Your task to perform on an android device: Open Google Chrome and open the bookmarks view Image 0: 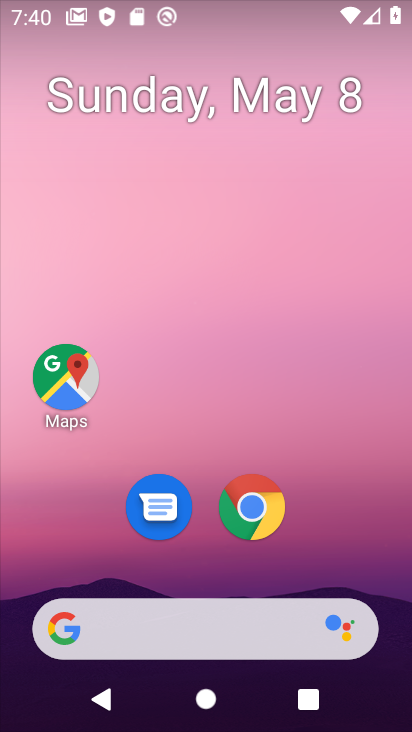
Step 0: click (201, 91)
Your task to perform on an android device: Open Google Chrome and open the bookmarks view Image 1: 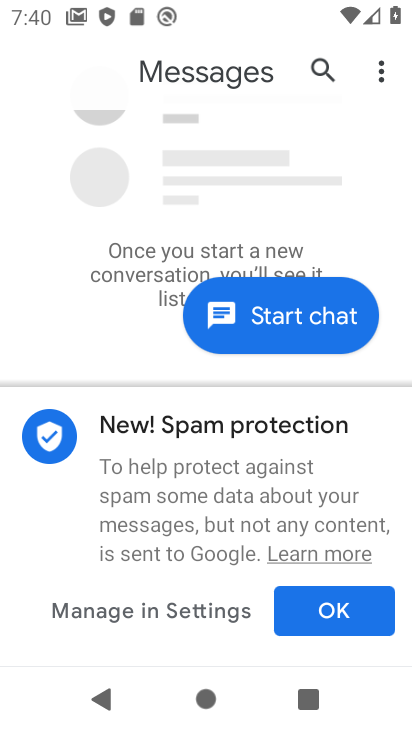
Step 1: press home button
Your task to perform on an android device: Open Google Chrome and open the bookmarks view Image 2: 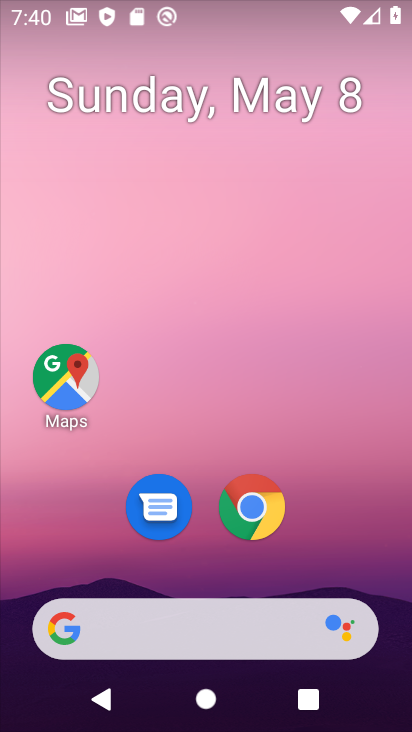
Step 2: click (253, 510)
Your task to perform on an android device: Open Google Chrome and open the bookmarks view Image 3: 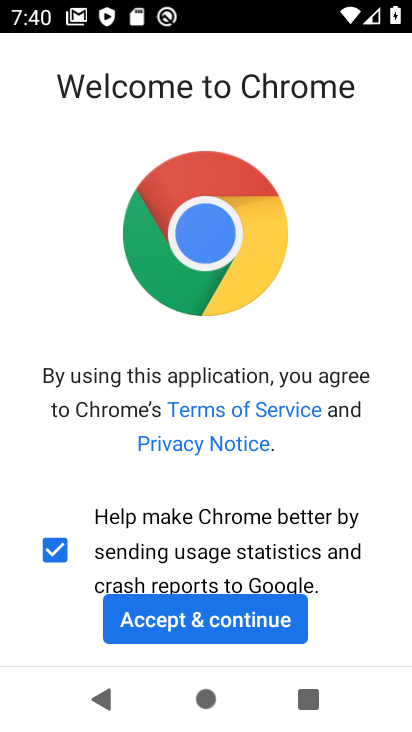
Step 3: click (224, 614)
Your task to perform on an android device: Open Google Chrome and open the bookmarks view Image 4: 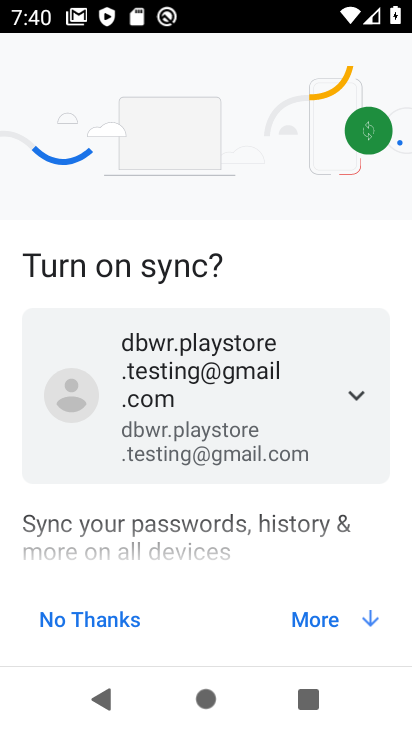
Step 4: click (327, 624)
Your task to perform on an android device: Open Google Chrome and open the bookmarks view Image 5: 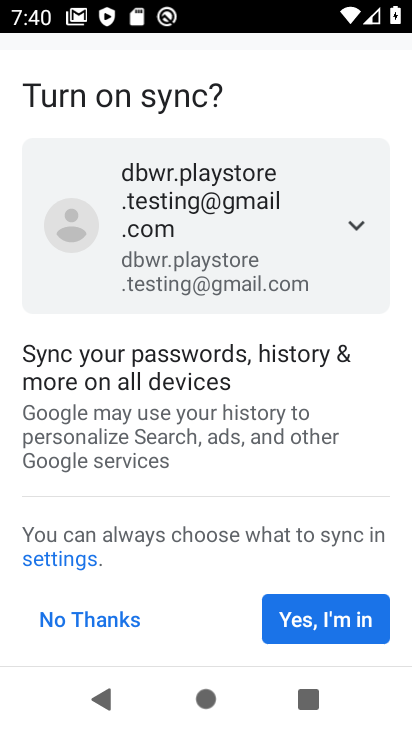
Step 5: click (327, 624)
Your task to perform on an android device: Open Google Chrome and open the bookmarks view Image 6: 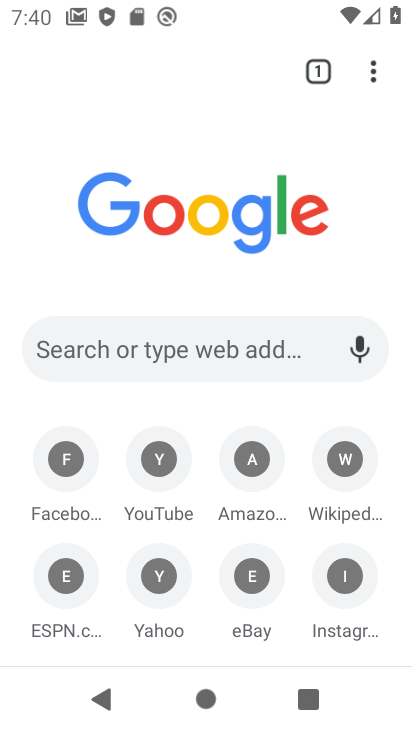
Step 6: click (375, 72)
Your task to perform on an android device: Open Google Chrome and open the bookmarks view Image 7: 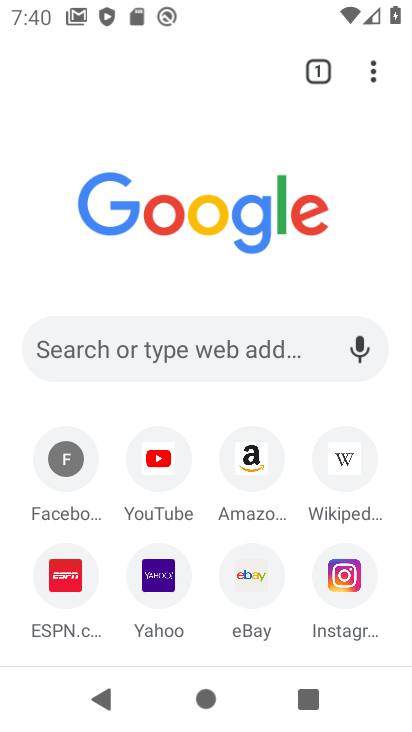
Step 7: click (173, 273)
Your task to perform on an android device: Open Google Chrome and open the bookmarks view Image 8: 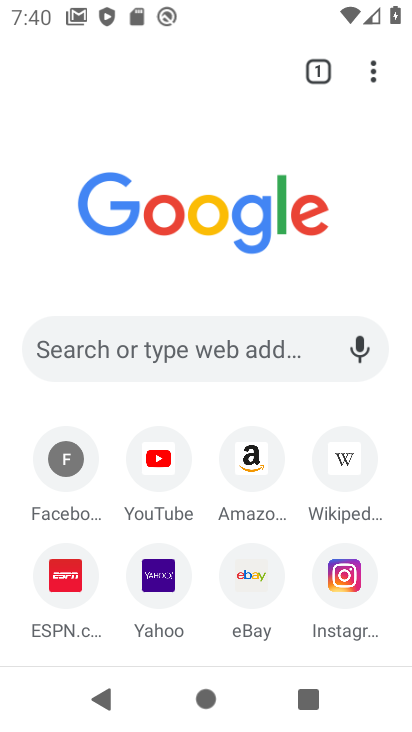
Step 8: click (371, 65)
Your task to perform on an android device: Open Google Chrome and open the bookmarks view Image 9: 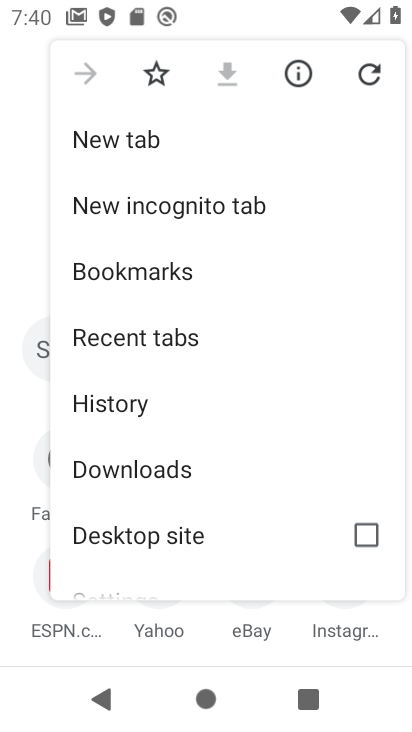
Step 9: click (138, 276)
Your task to perform on an android device: Open Google Chrome and open the bookmarks view Image 10: 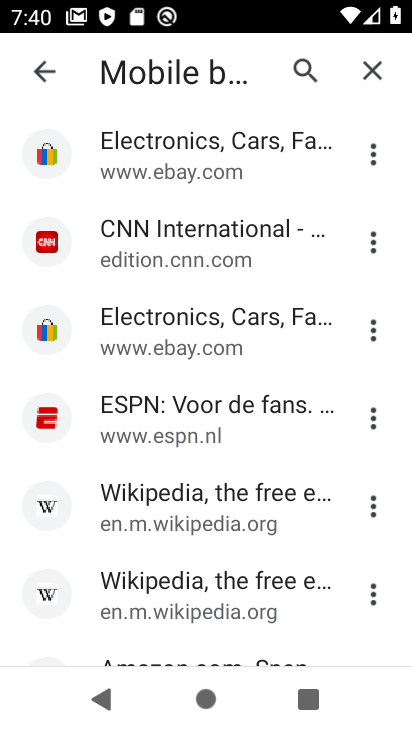
Step 10: task complete